Your task to perform on an android device: check out phone information Image 0: 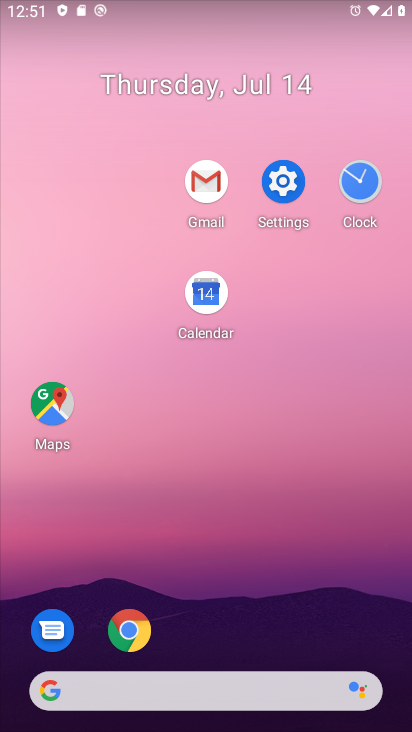
Step 0: click (289, 175)
Your task to perform on an android device: check out phone information Image 1: 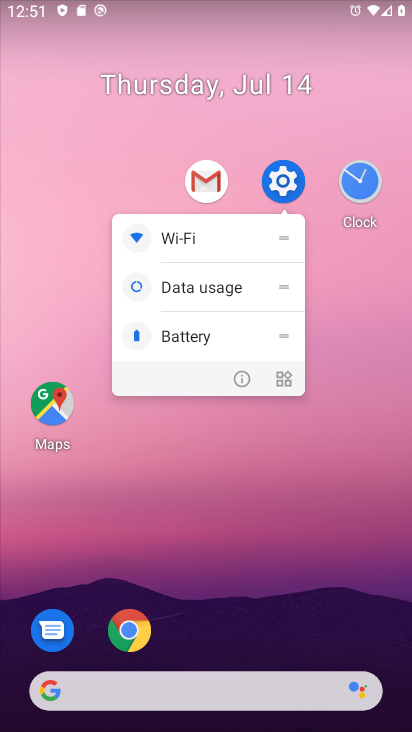
Step 1: click (289, 175)
Your task to perform on an android device: check out phone information Image 2: 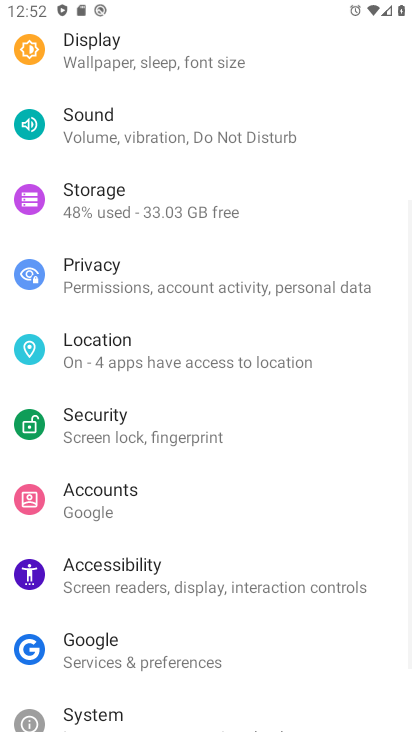
Step 2: drag from (240, 625) to (280, 240)
Your task to perform on an android device: check out phone information Image 3: 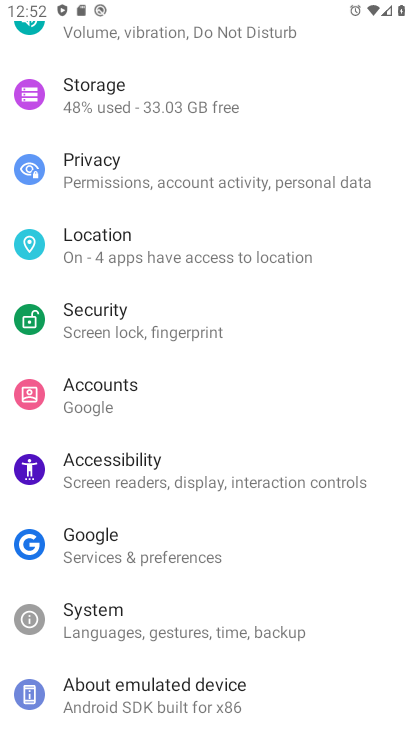
Step 3: click (189, 669)
Your task to perform on an android device: check out phone information Image 4: 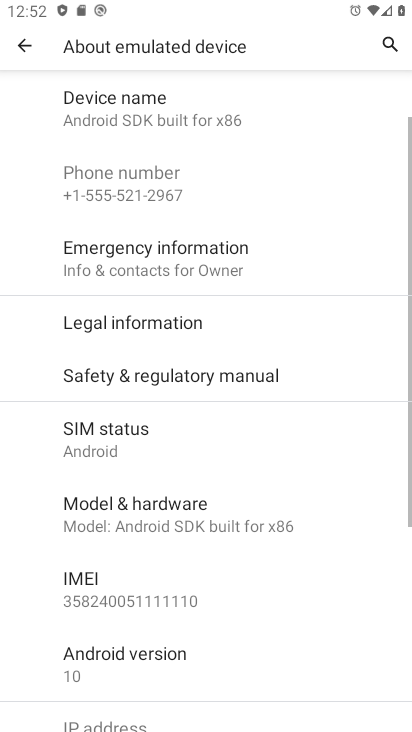
Step 4: drag from (189, 669) to (269, 270)
Your task to perform on an android device: check out phone information Image 5: 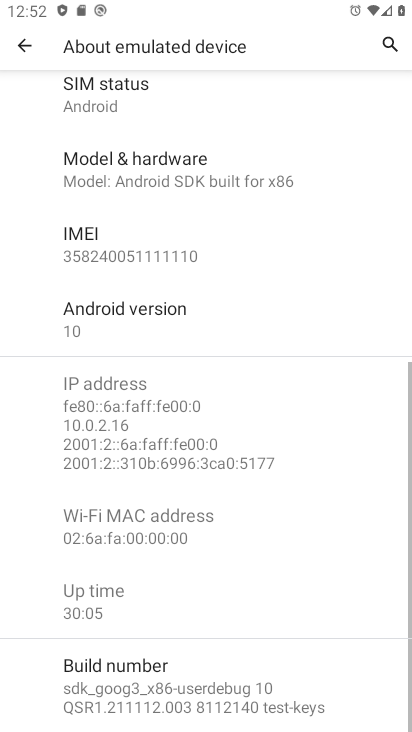
Step 5: click (229, 173)
Your task to perform on an android device: check out phone information Image 6: 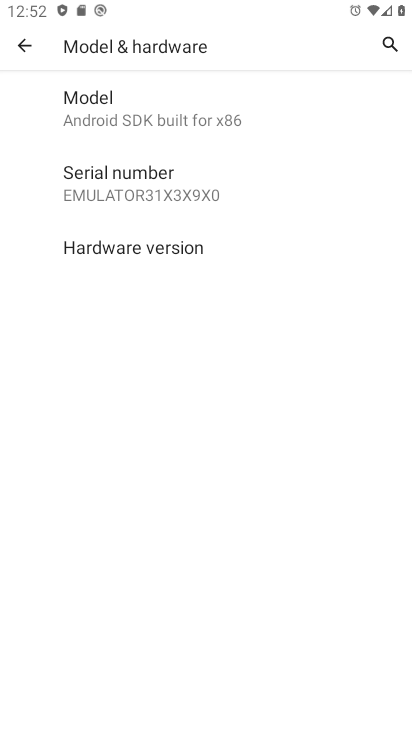
Step 6: task complete